Your task to perform on an android device: change your default location settings in chrome Image 0: 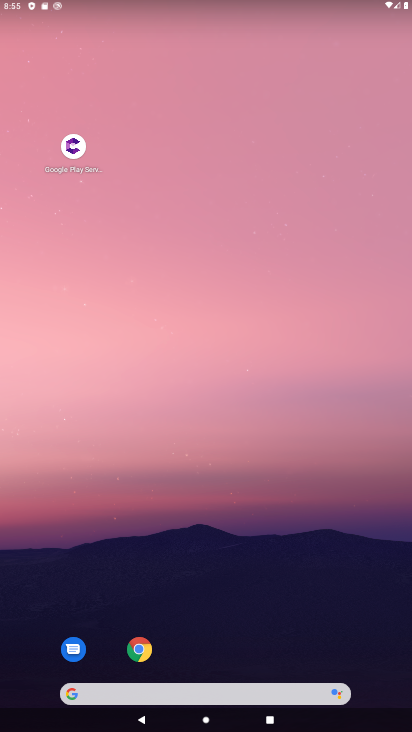
Step 0: press home button
Your task to perform on an android device: change your default location settings in chrome Image 1: 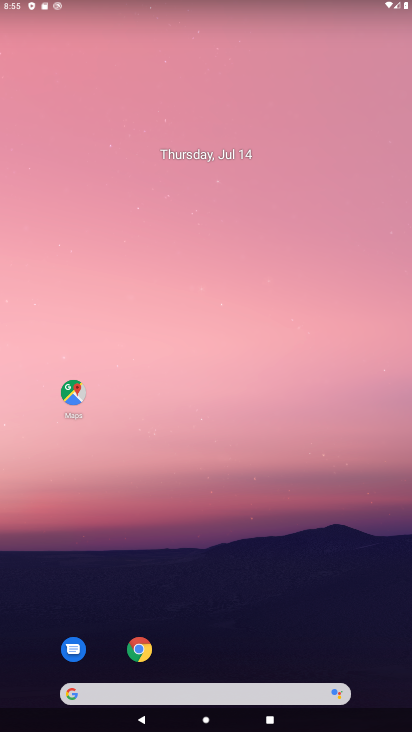
Step 1: click (139, 657)
Your task to perform on an android device: change your default location settings in chrome Image 2: 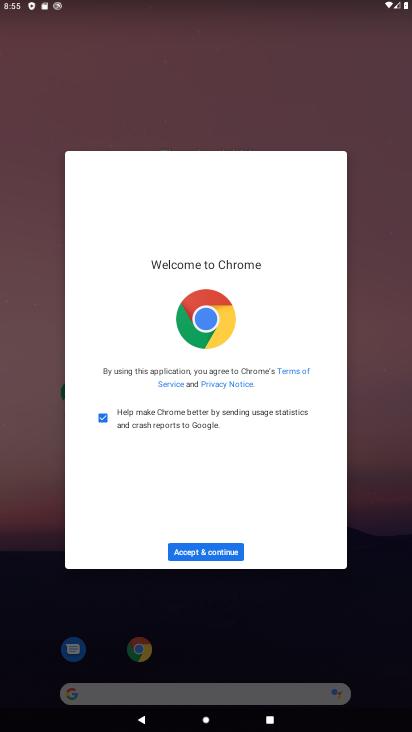
Step 2: click (207, 550)
Your task to perform on an android device: change your default location settings in chrome Image 3: 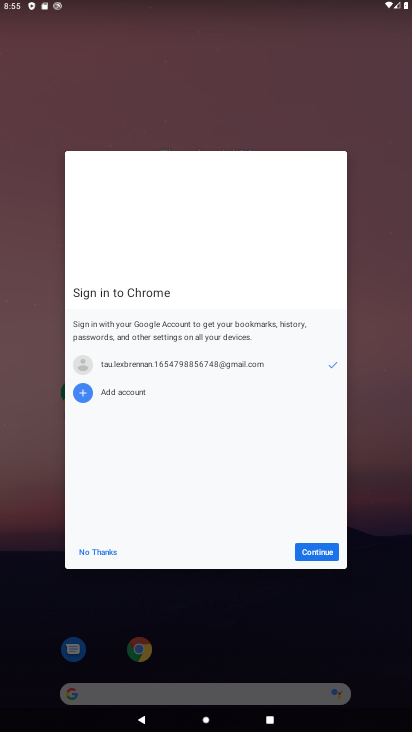
Step 3: click (309, 551)
Your task to perform on an android device: change your default location settings in chrome Image 4: 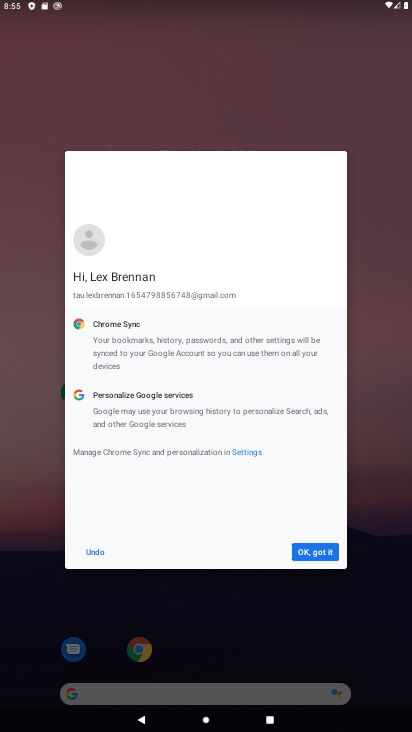
Step 4: click (309, 551)
Your task to perform on an android device: change your default location settings in chrome Image 5: 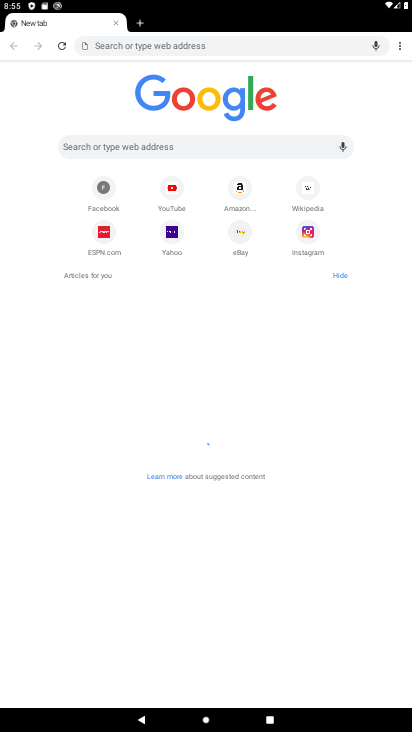
Step 5: click (402, 46)
Your task to perform on an android device: change your default location settings in chrome Image 6: 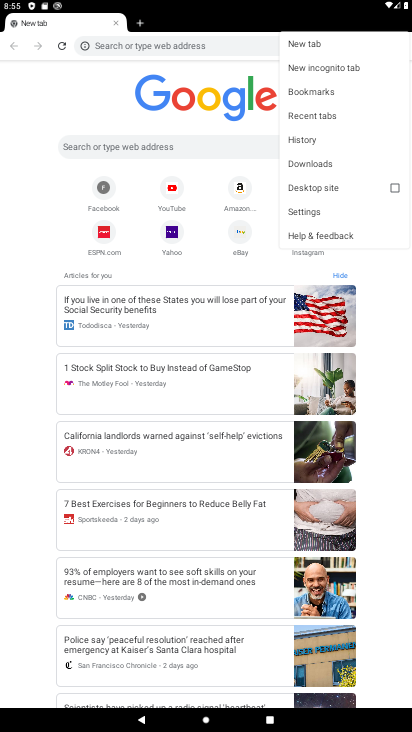
Step 6: click (299, 211)
Your task to perform on an android device: change your default location settings in chrome Image 7: 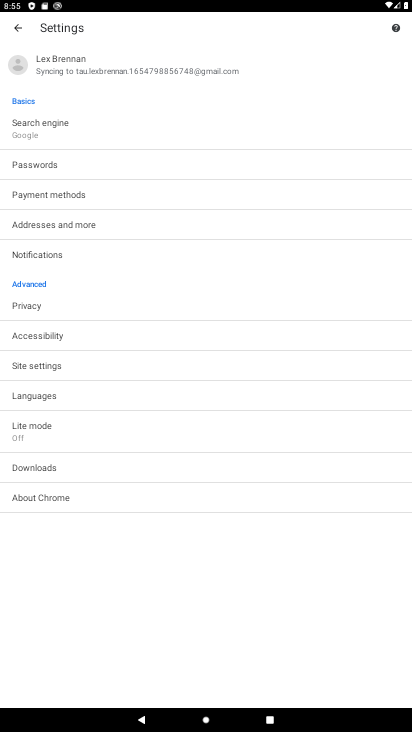
Step 7: click (23, 373)
Your task to perform on an android device: change your default location settings in chrome Image 8: 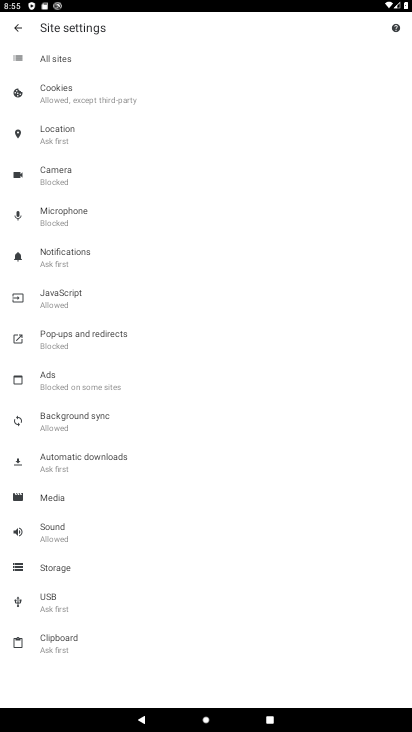
Step 8: click (71, 139)
Your task to perform on an android device: change your default location settings in chrome Image 9: 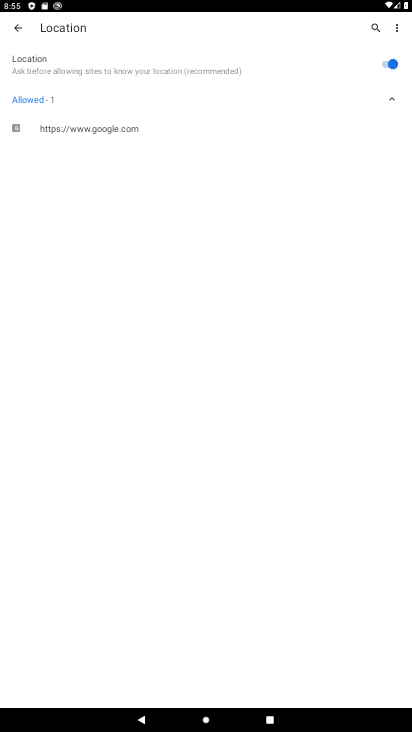
Step 9: click (385, 70)
Your task to perform on an android device: change your default location settings in chrome Image 10: 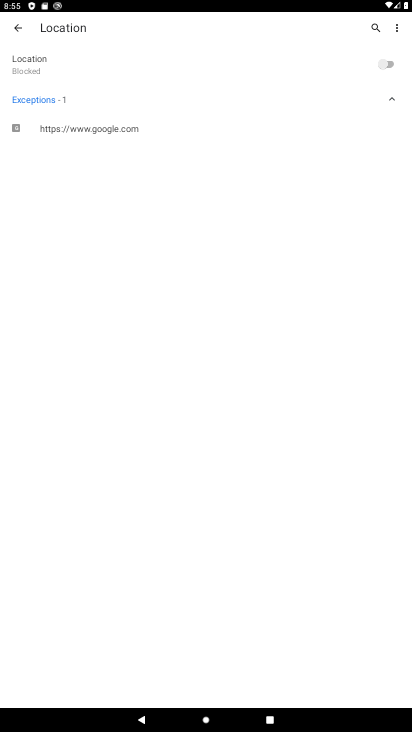
Step 10: task complete